Your task to perform on an android device: turn off location Image 0: 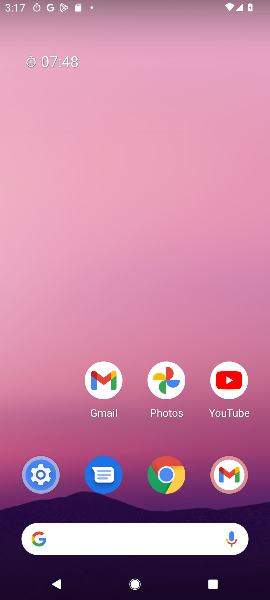
Step 0: press home button
Your task to perform on an android device: turn off location Image 1: 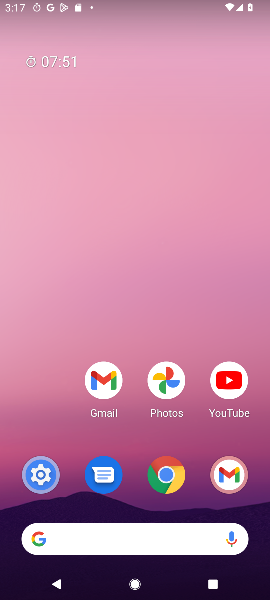
Step 1: drag from (56, 436) to (54, 234)
Your task to perform on an android device: turn off location Image 2: 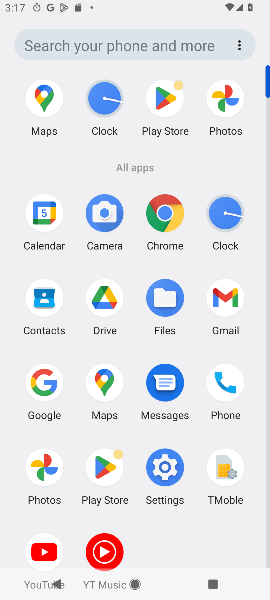
Step 2: click (162, 471)
Your task to perform on an android device: turn off location Image 3: 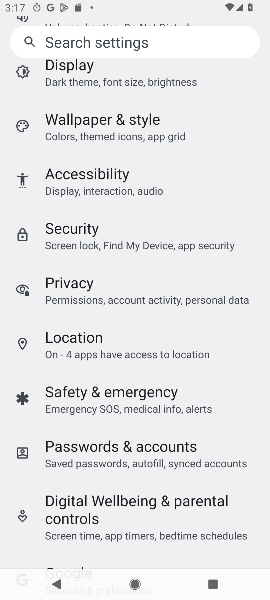
Step 3: drag from (248, 375) to (244, 310)
Your task to perform on an android device: turn off location Image 4: 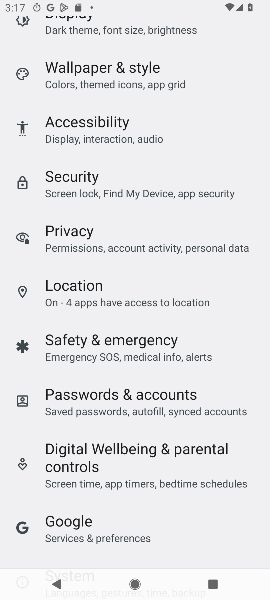
Step 4: drag from (229, 552) to (240, 474)
Your task to perform on an android device: turn off location Image 5: 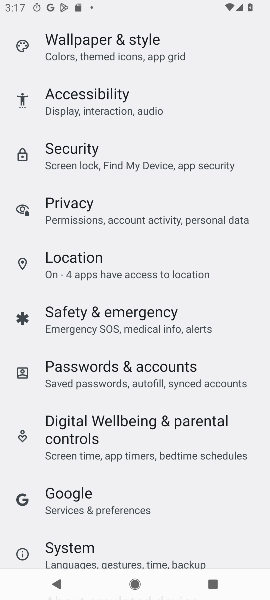
Step 5: drag from (232, 508) to (235, 461)
Your task to perform on an android device: turn off location Image 6: 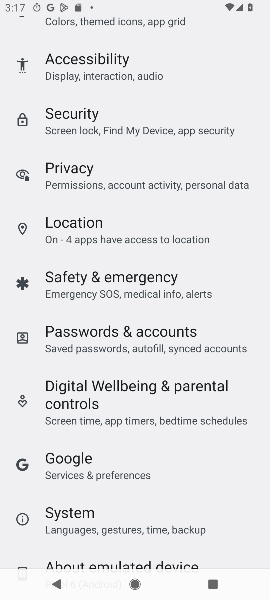
Step 6: drag from (224, 534) to (222, 455)
Your task to perform on an android device: turn off location Image 7: 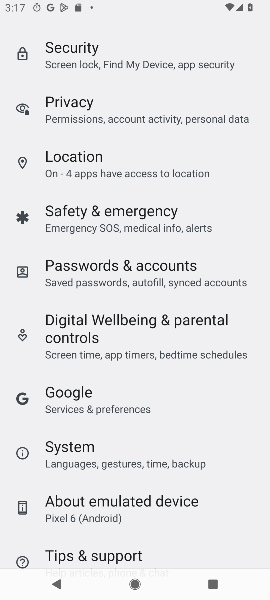
Step 7: drag from (227, 540) to (226, 439)
Your task to perform on an android device: turn off location Image 8: 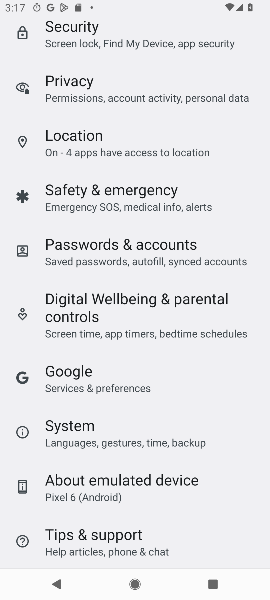
Step 8: drag from (226, 361) to (229, 460)
Your task to perform on an android device: turn off location Image 9: 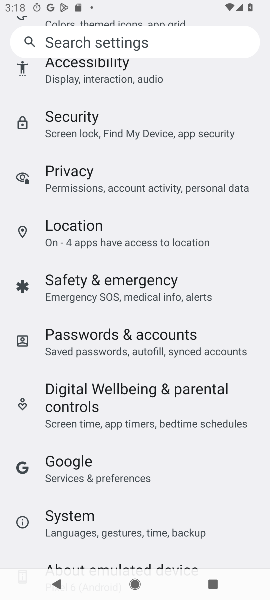
Step 9: drag from (228, 265) to (236, 408)
Your task to perform on an android device: turn off location Image 10: 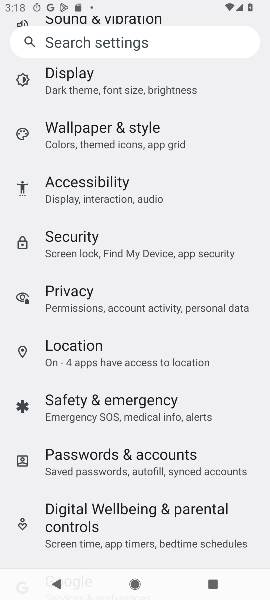
Step 10: drag from (237, 331) to (229, 429)
Your task to perform on an android device: turn off location Image 11: 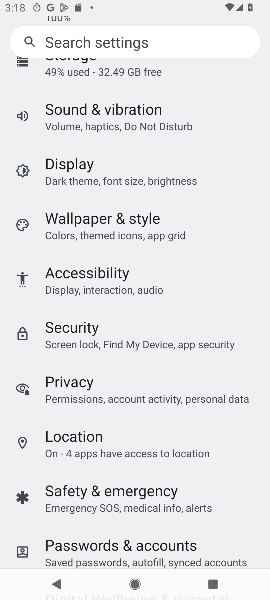
Step 11: click (143, 445)
Your task to perform on an android device: turn off location Image 12: 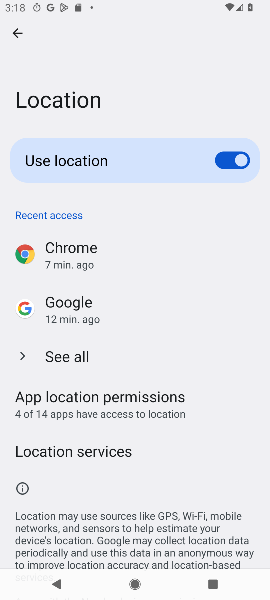
Step 12: click (239, 160)
Your task to perform on an android device: turn off location Image 13: 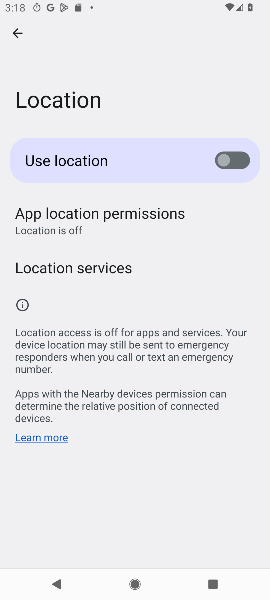
Step 13: task complete